Your task to perform on an android device: Open eBay Image 0: 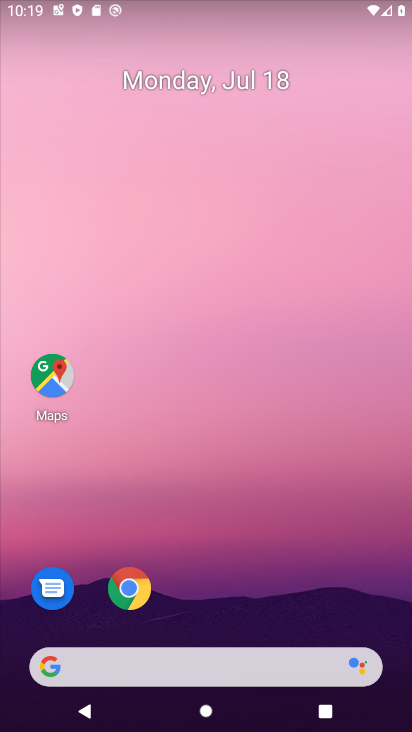
Step 0: drag from (225, 722) to (229, 171)
Your task to perform on an android device: Open eBay Image 1: 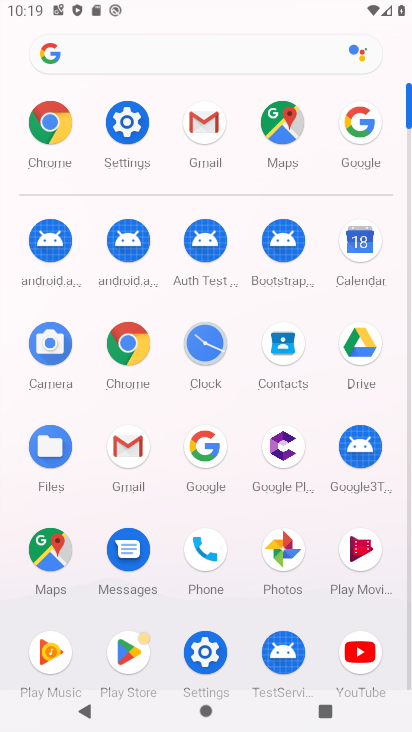
Step 1: click (128, 347)
Your task to perform on an android device: Open eBay Image 2: 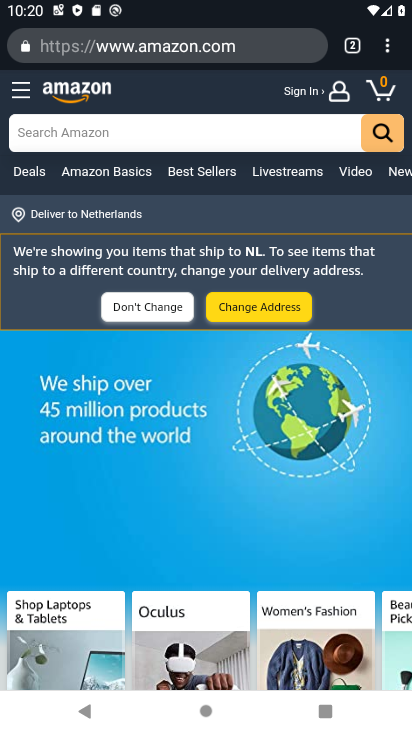
Step 2: click (389, 51)
Your task to perform on an android device: Open eBay Image 3: 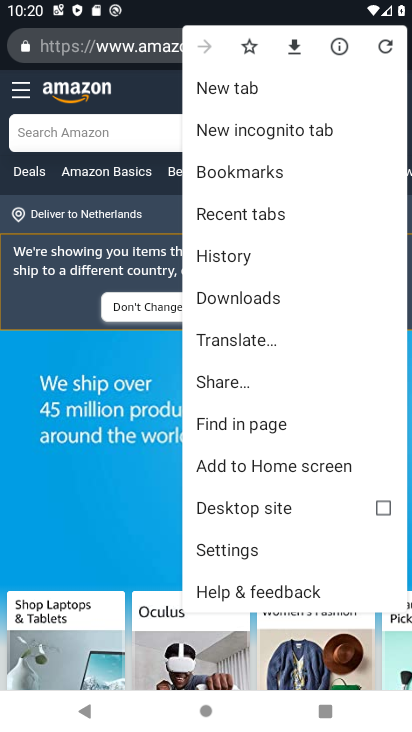
Step 3: click (212, 89)
Your task to perform on an android device: Open eBay Image 4: 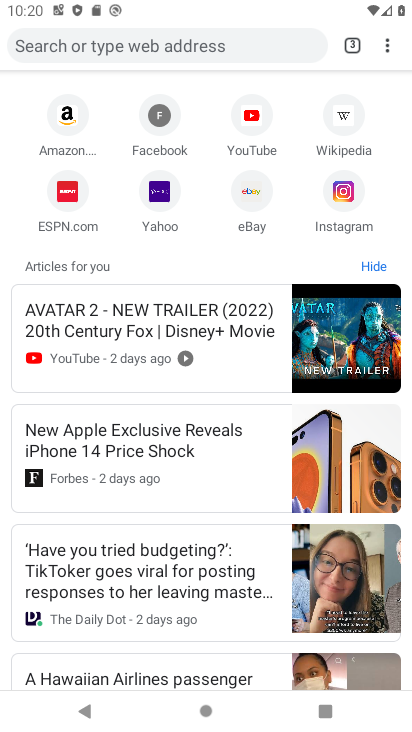
Step 4: click (245, 188)
Your task to perform on an android device: Open eBay Image 5: 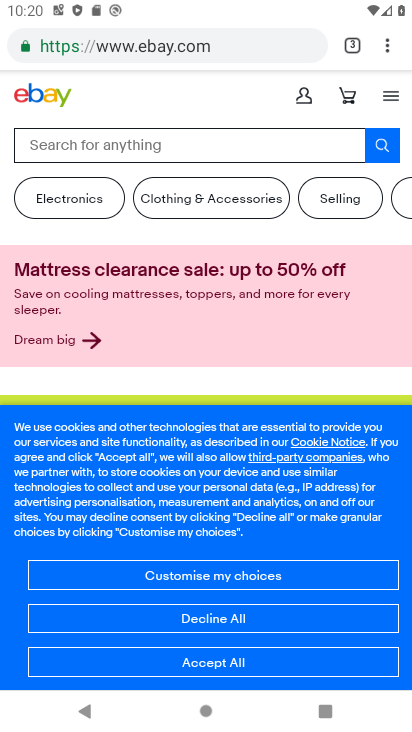
Step 5: task complete